Your task to perform on an android device: turn on showing notifications on the lock screen Image 0: 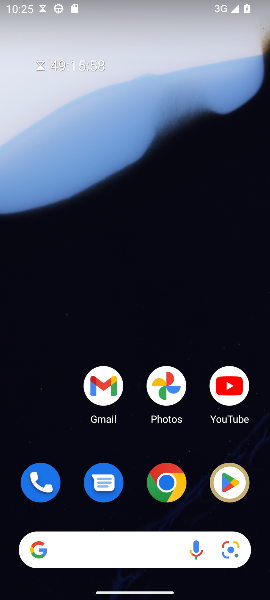
Step 0: drag from (124, 533) to (142, 122)
Your task to perform on an android device: turn on showing notifications on the lock screen Image 1: 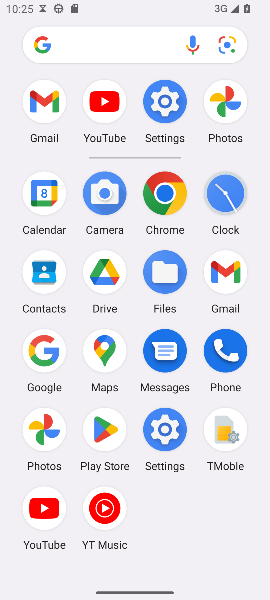
Step 1: click (189, 113)
Your task to perform on an android device: turn on showing notifications on the lock screen Image 2: 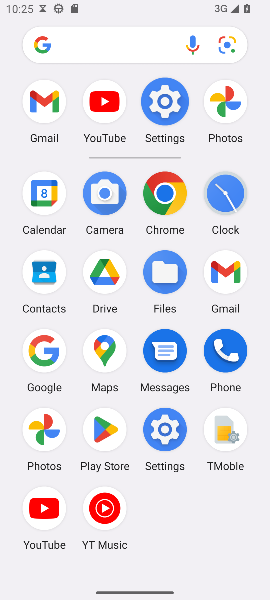
Step 2: click (170, 117)
Your task to perform on an android device: turn on showing notifications on the lock screen Image 3: 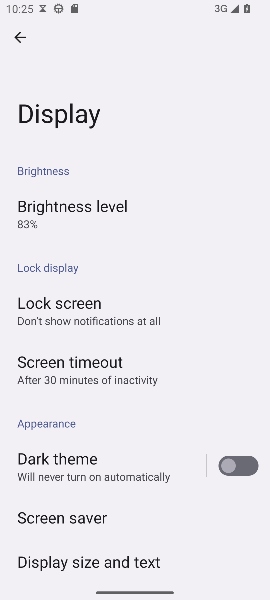
Step 3: drag from (122, 519) to (112, 265)
Your task to perform on an android device: turn on showing notifications on the lock screen Image 4: 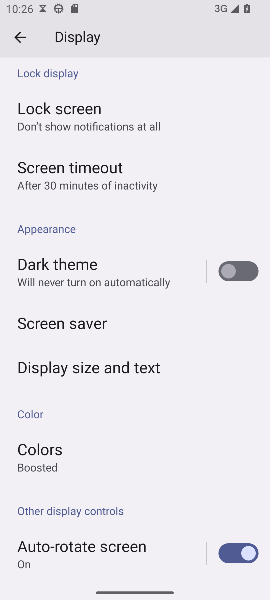
Step 4: click (51, 114)
Your task to perform on an android device: turn on showing notifications on the lock screen Image 5: 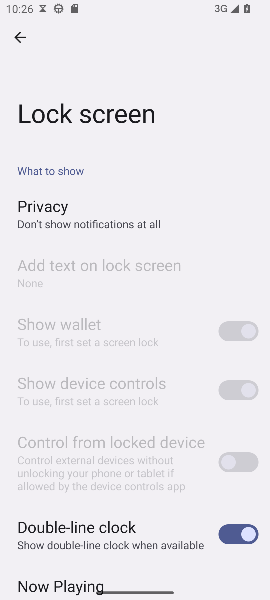
Step 5: task complete